Your task to perform on an android device: Open ESPN.com Image 0: 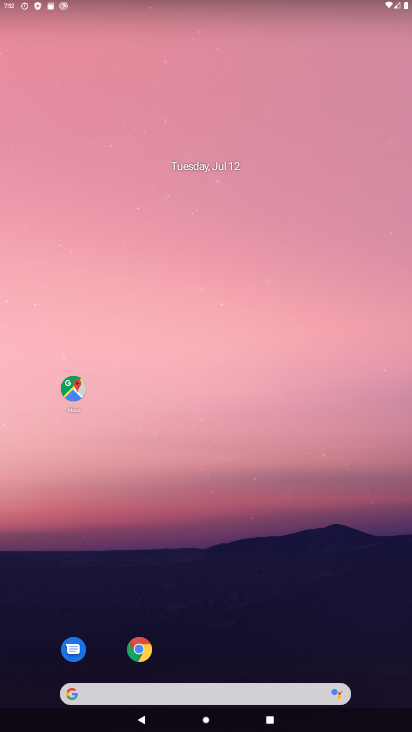
Step 0: drag from (266, 560) to (245, 205)
Your task to perform on an android device: Open ESPN.com Image 1: 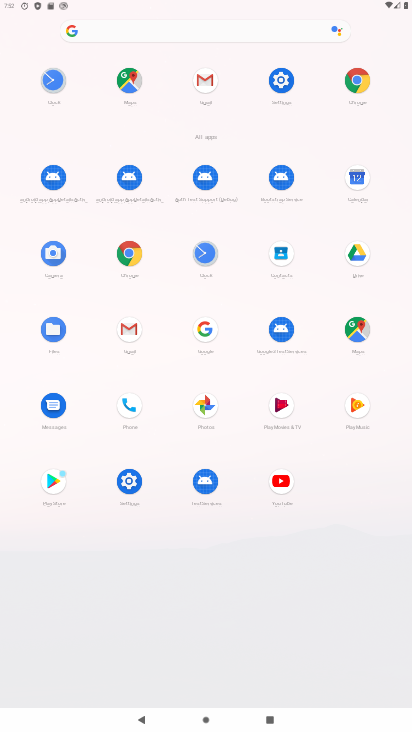
Step 1: click (132, 256)
Your task to perform on an android device: Open ESPN.com Image 2: 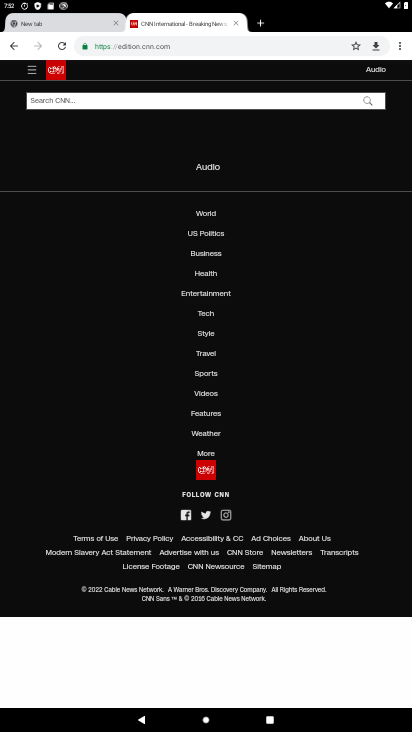
Step 2: click (233, 55)
Your task to perform on an android device: Open ESPN.com Image 3: 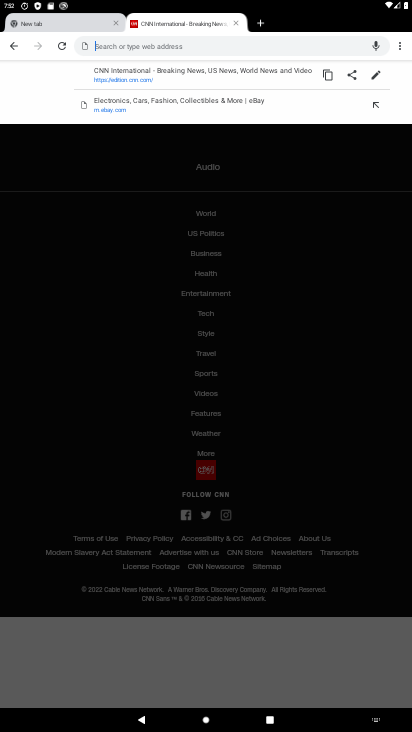
Step 3: type "espn.com"
Your task to perform on an android device: Open ESPN.com Image 4: 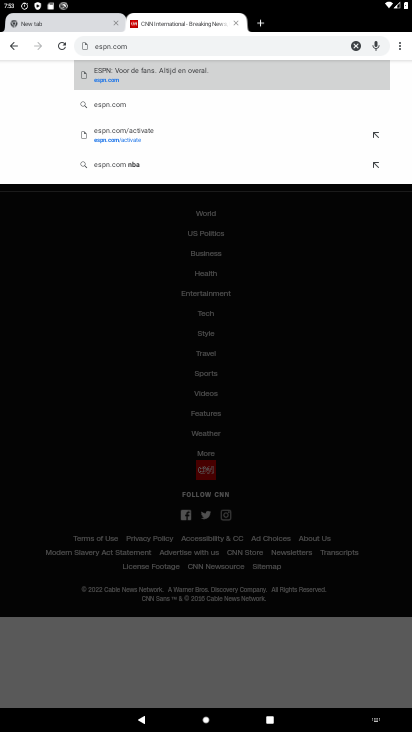
Step 4: click (112, 80)
Your task to perform on an android device: Open ESPN.com Image 5: 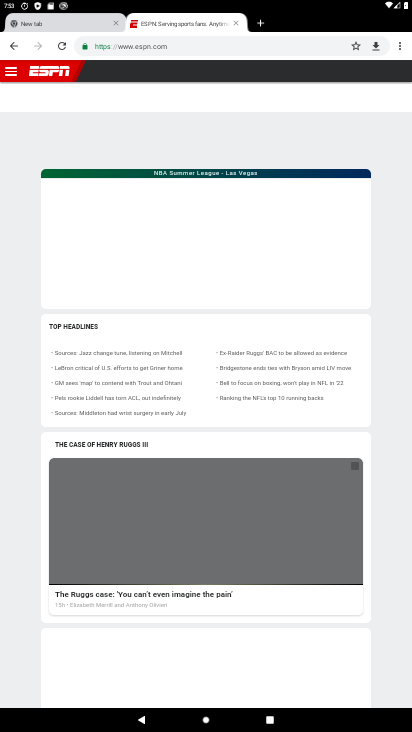
Step 5: task complete